Your task to perform on an android device: turn on translation in the chrome app Image 0: 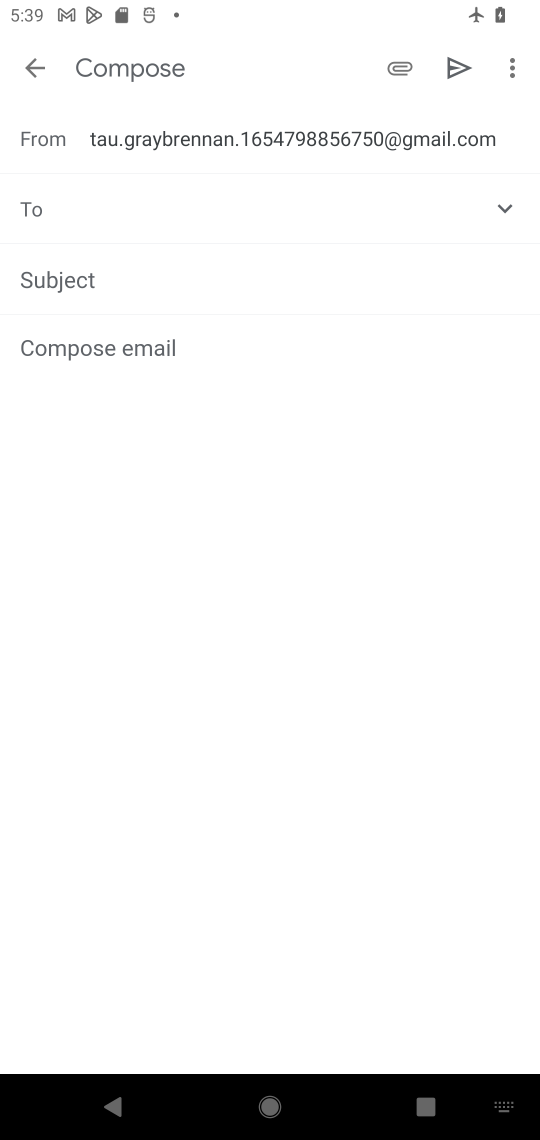
Step 0: press home button
Your task to perform on an android device: turn on translation in the chrome app Image 1: 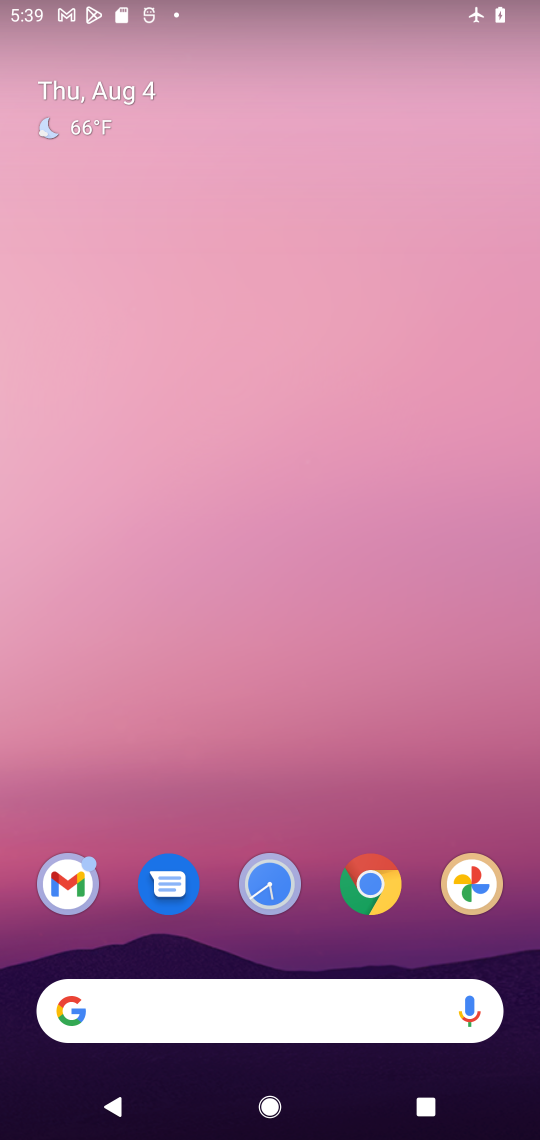
Step 1: click (357, 899)
Your task to perform on an android device: turn on translation in the chrome app Image 2: 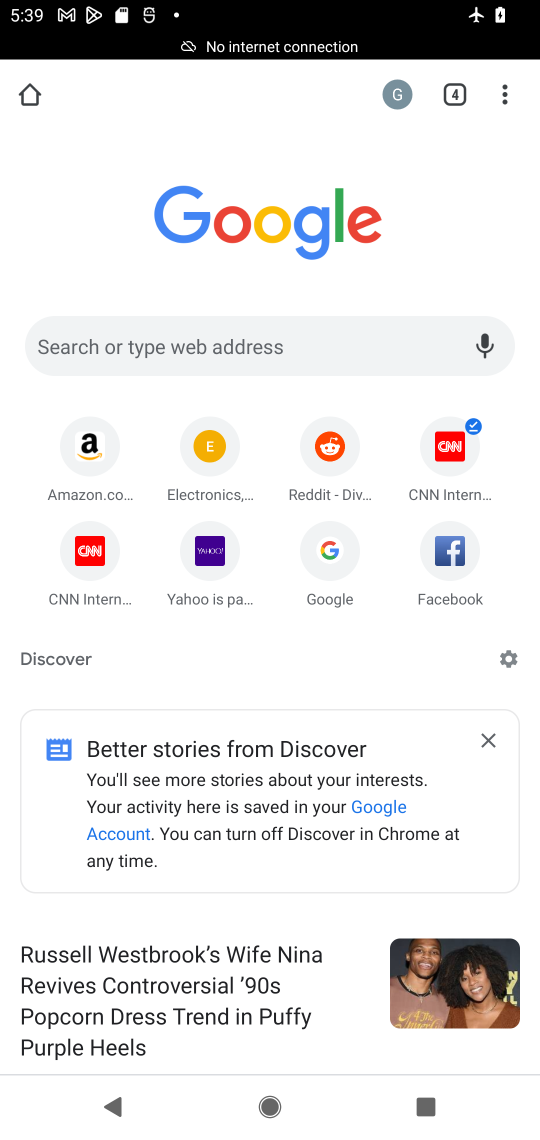
Step 2: click (503, 80)
Your task to perform on an android device: turn on translation in the chrome app Image 3: 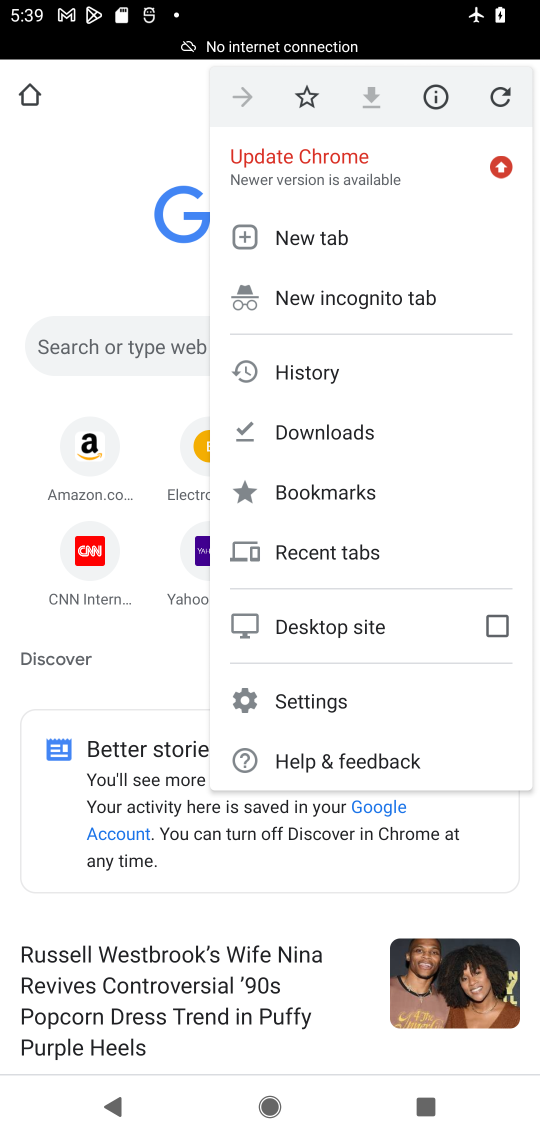
Step 3: click (372, 700)
Your task to perform on an android device: turn on translation in the chrome app Image 4: 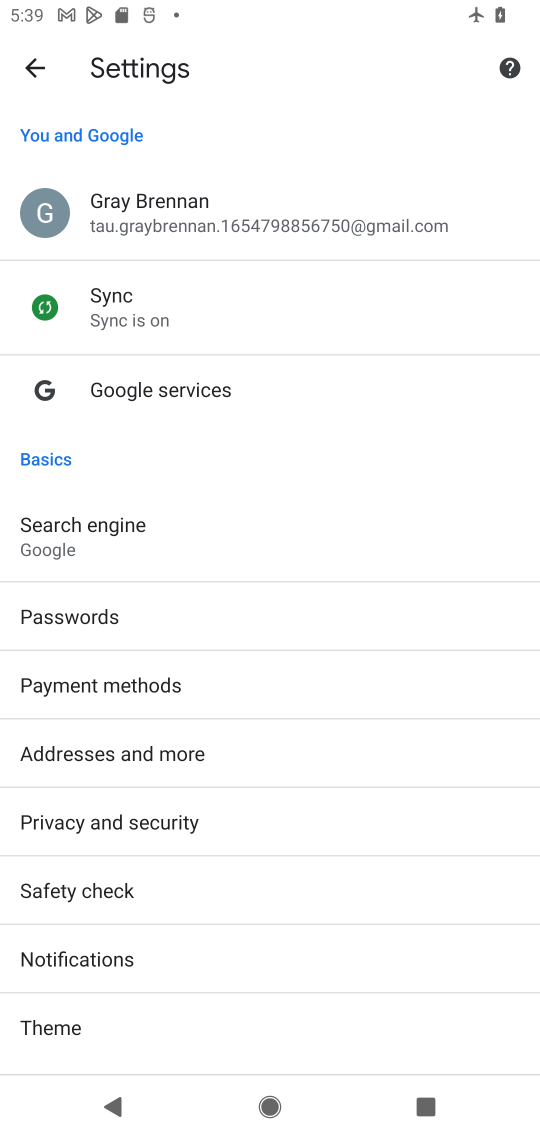
Step 4: drag from (189, 1002) to (213, 350)
Your task to perform on an android device: turn on translation in the chrome app Image 5: 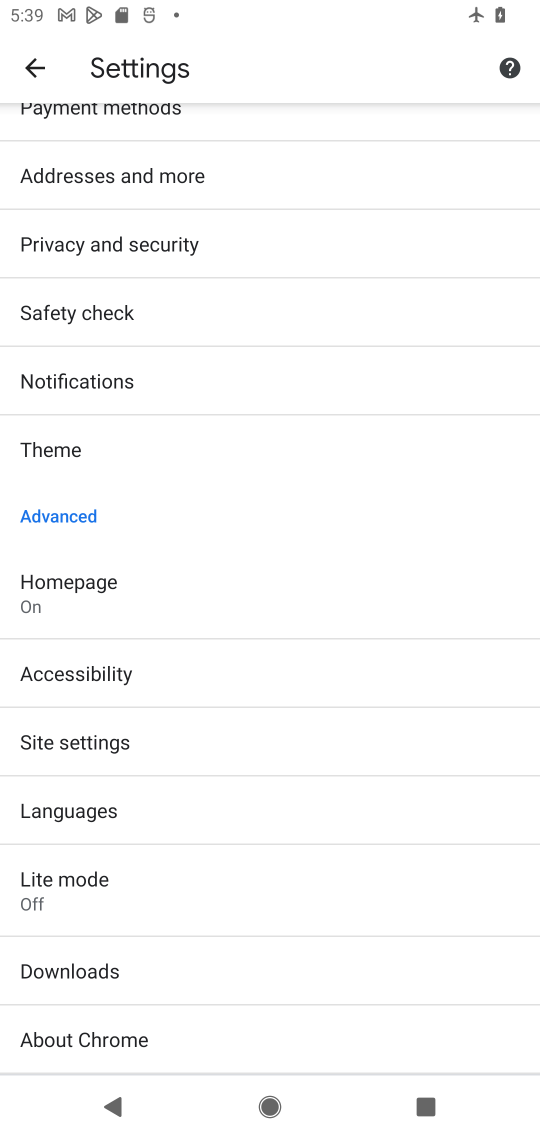
Step 5: click (183, 826)
Your task to perform on an android device: turn on translation in the chrome app Image 6: 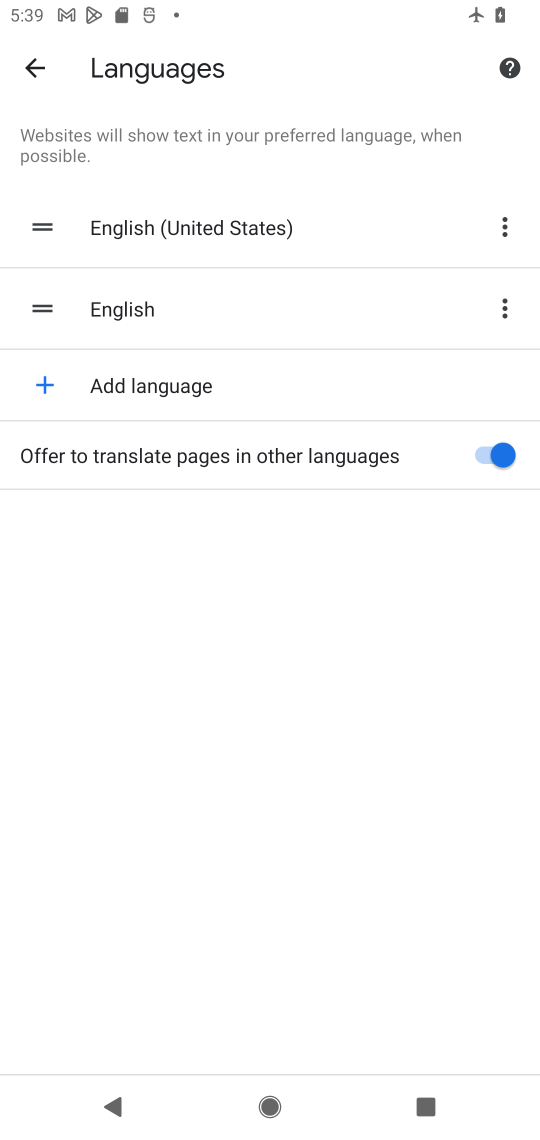
Step 6: task complete